Your task to perform on an android device: Clear the shopping cart on walmart.com. Search for "lenovo thinkpad" on walmart.com, select the first entry, add it to the cart, then select checkout. Image 0: 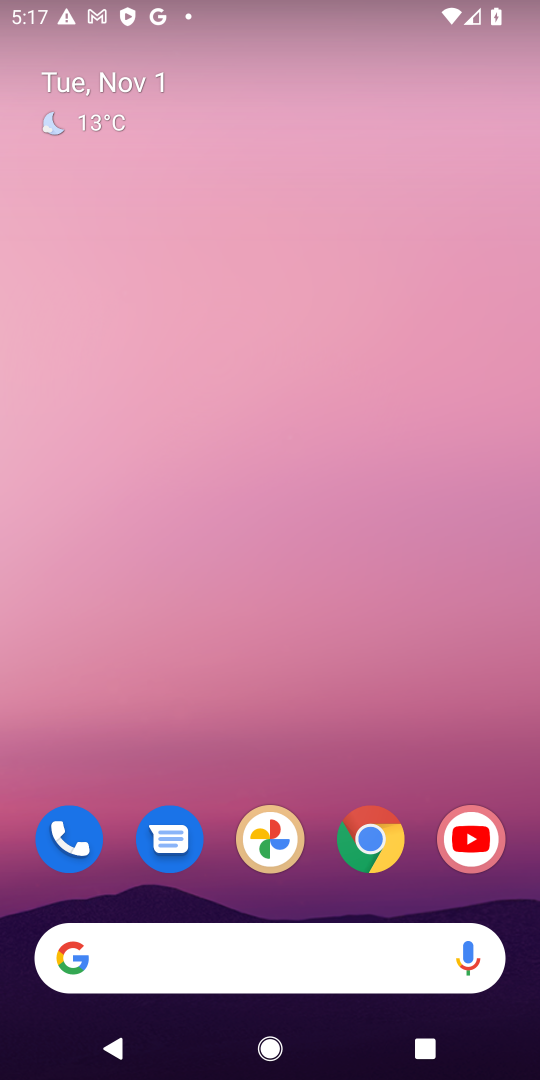
Step 0: drag from (322, 891) to (342, 106)
Your task to perform on an android device: Clear the shopping cart on walmart.com. Search for "lenovo thinkpad" on walmart.com, select the first entry, add it to the cart, then select checkout. Image 1: 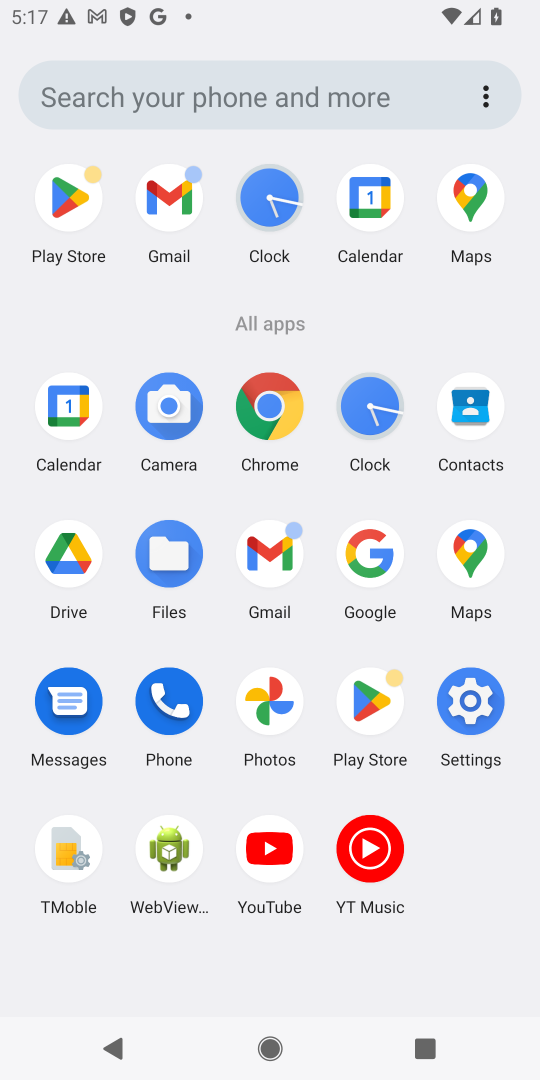
Step 1: click (274, 395)
Your task to perform on an android device: Clear the shopping cart on walmart.com. Search for "lenovo thinkpad" on walmart.com, select the first entry, add it to the cart, then select checkout. Image 2: 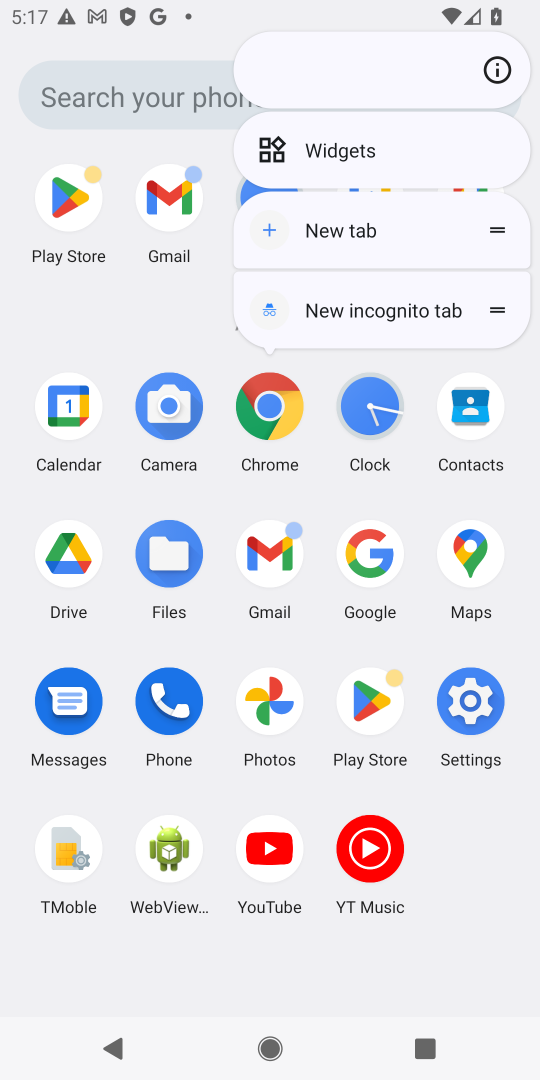
Step 2: click (278, 416)
Your task to perform on an android device: Clear the shopping cart on walmart.com. Search for "lenovo thinkpad" on walmart.com, select the first entry, add it to the cart, then select checkout. Image 3: 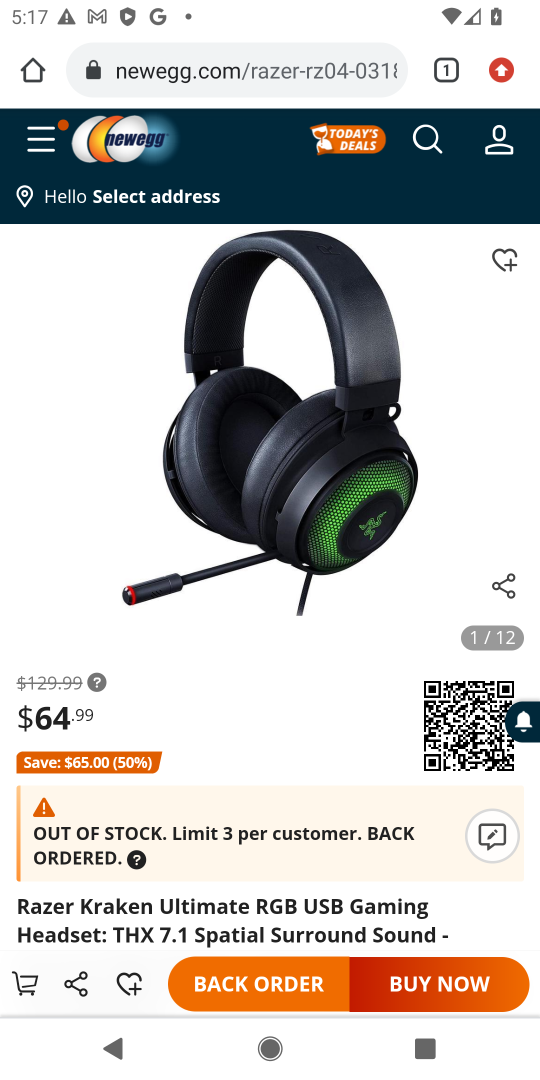
Step 3: click (271, 60)
Your task to perform on an android device: Clear the shopping cart on walmart.com. Search for "lenovo thinkpad" on walmart.com, select the first entry, add it to the cart, then select checkout. Image 4: 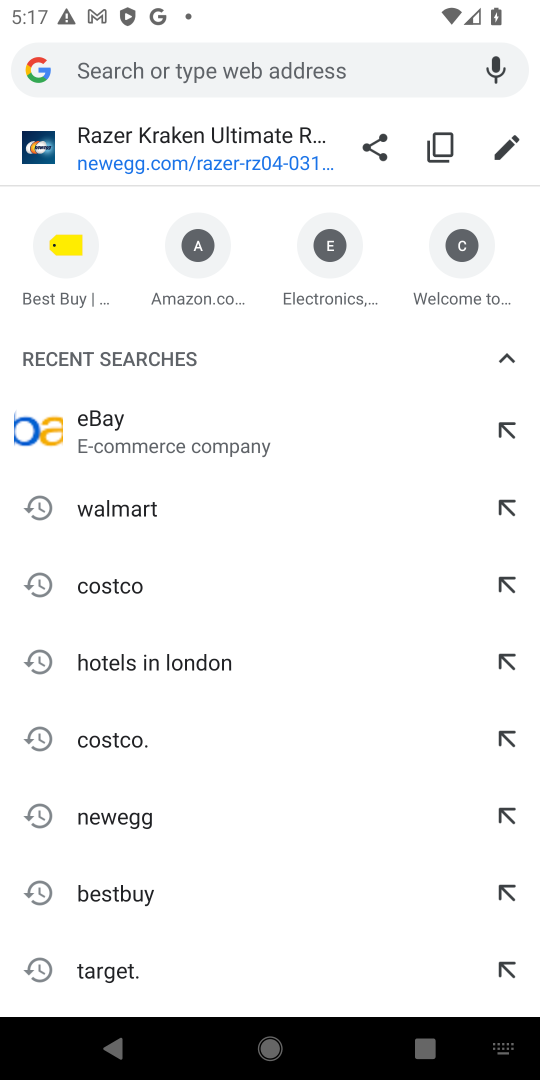
Step 4: type "walmart.com"
Your task to perform on an android device: Clear the shopping cart on walmart.com. Search for "lenovo thinkpad" on walmart.com, select the first entry, add it to the cart, then select checkout. Image 5: 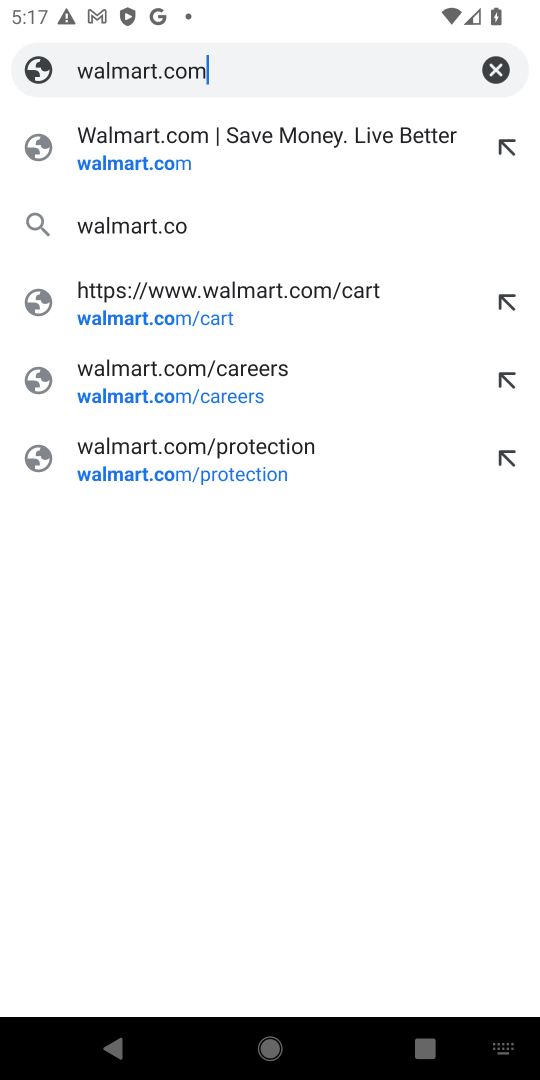
Step 5: press enter
Your task to perform on an android device: Clear the shopping cart on walmart.com. Search for "lenovo thinkpad" on walmart.com, select the first entry, add it to the cart, then select checkout. Image 6: 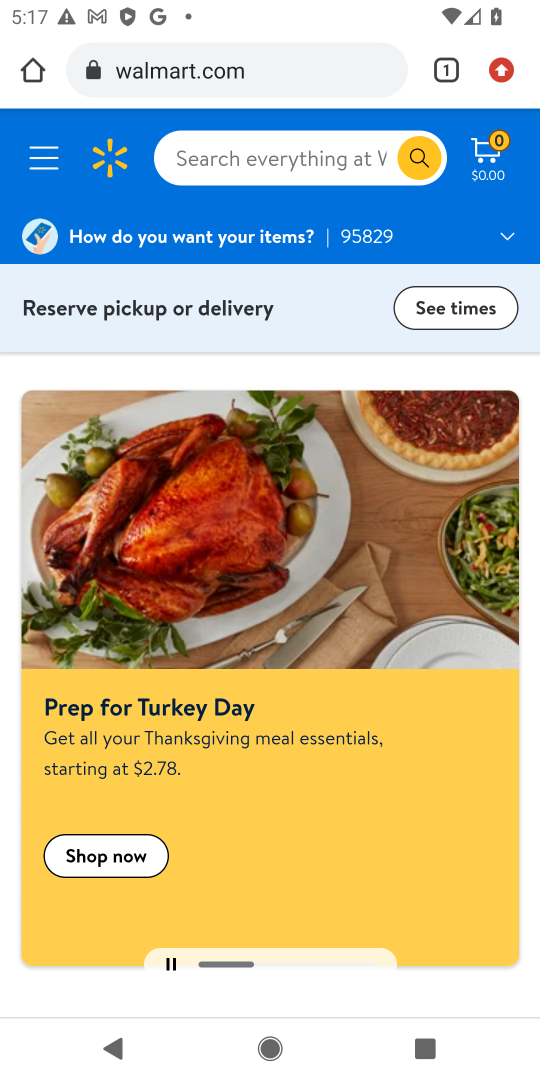
Step 6: click (505, 153)
Your task to perform on an android device: Clear the shopping cart on walmart.com. Search for "lenovo thinkpad" on walmart.com, select the first entry, add it to the cart, then select checkout. Image 7: 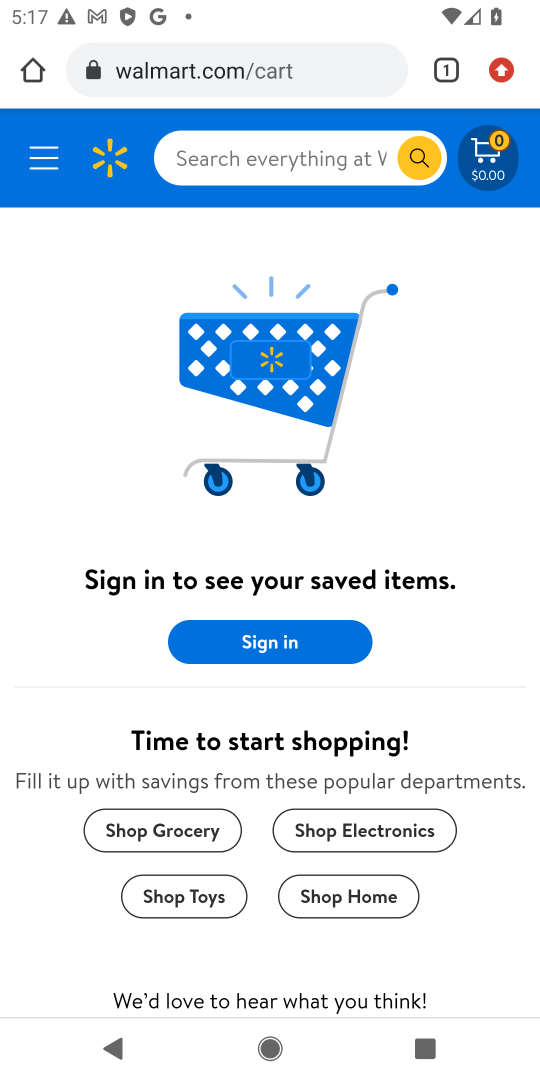
Step 7: click (294, 149)
Your task to perform on an android device: Clear the shopping cart on walmart.com. Search for "lenovo thinkpad" on walmart.com, select the first entry, add it to the cart, then select checkout. Image 8: 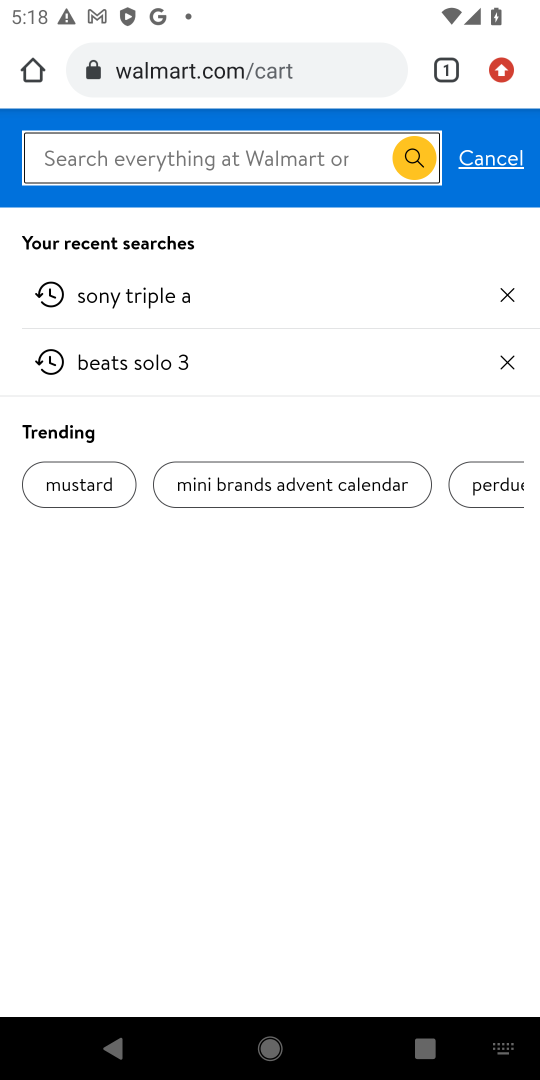
Step 8: type "lenovo thinkpad"
Your task to perform on an android device: Clear the shopping cart on walmart.com. Search for "lenovo thinkpad" on walmart.com, select the first entry, add it to the cart, then select checkout. Image 9: 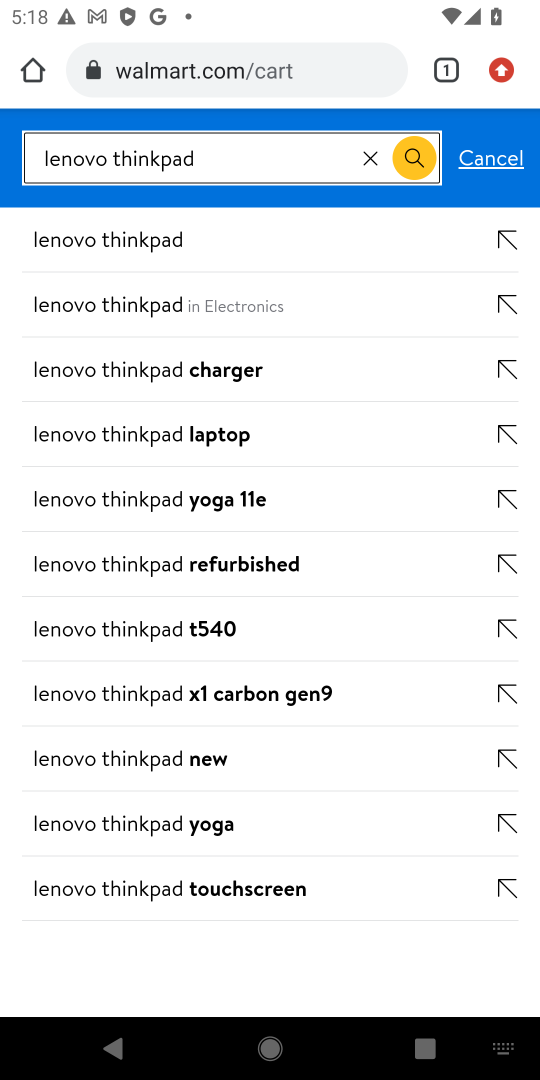
Step 9: press enter
Your task to perform on an android device: Clear the shopping cart on walmart.com. Search for "lenovo thinkpad" on walmart.com, select the first entry, add it to the cart, then select checkout. Image 10: 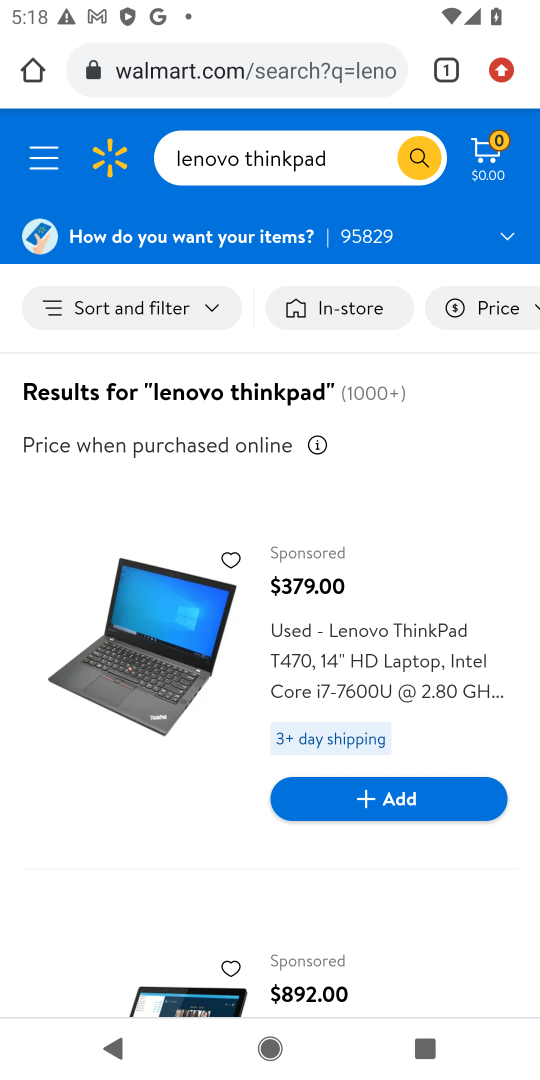
Step 10: drag from (326, 879) to (449, 161)
Your task to perform on an android device: Clear the shopping cart on walmart.com. Search for "lenovo thinkpad" on walmart.com, select the first entry, add it to the cart, then select checkout. Image 11: 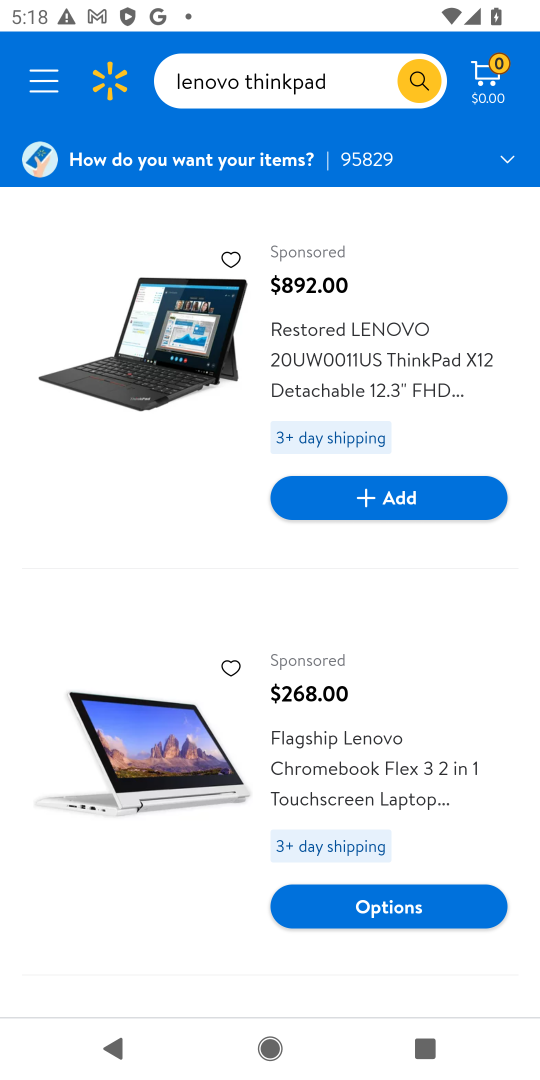
Step 11: drag from (381, 853) to (440, 269)
Your task to perform on an android device: Clear the shopping cart on walmart.com. Search for "lenovo thinkpad" on walmart.com, select the first entry, add it to the cart, then select checkout. Image 12: 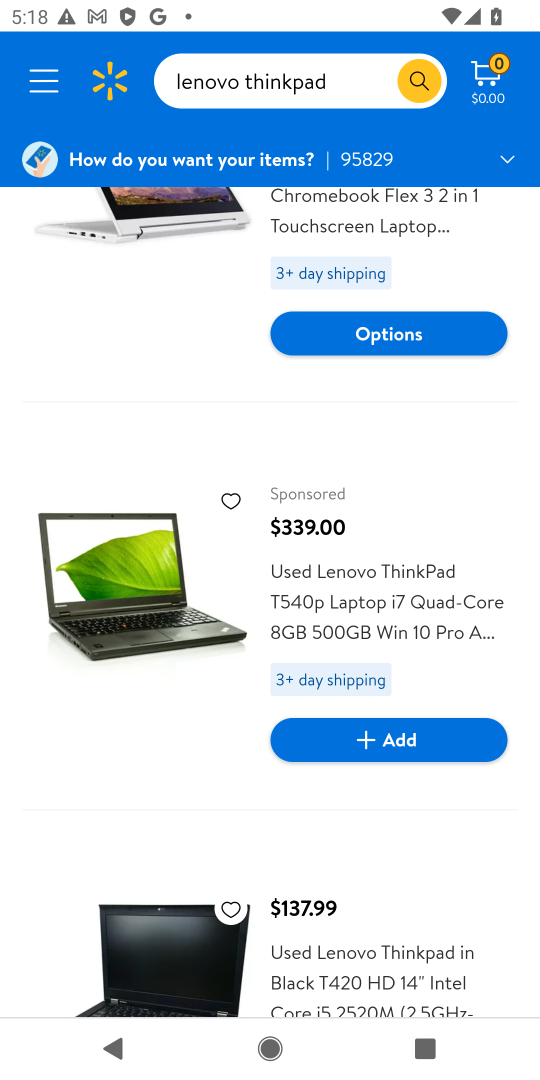
Step 12: drag from (261, 711) to (349, 238)
Your task to perform on an android device: Clear the shopping cart on walmart.com. Search for "lenovo thinkpad" on walmart.com, select the first entry, add it to the cart, then select checkout. Image 13: 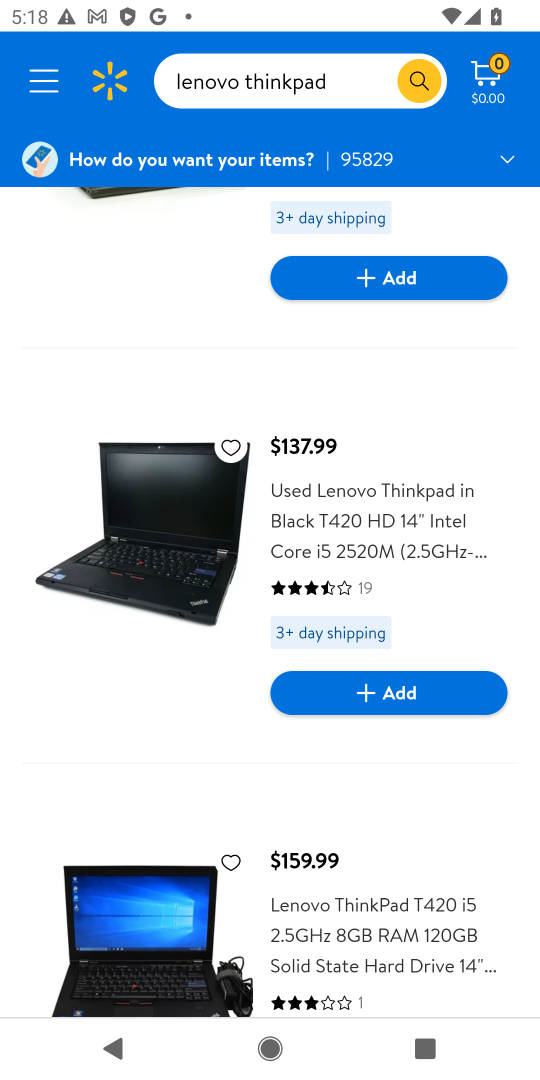
Step 13: click (333, 541)
Your task to perform on an android device: Clear the shopping cart on walmart.com. Search for "lenovo thinkpad" on walmart.com, select the first entry, add it to the cart, then select checkout. Image 14: 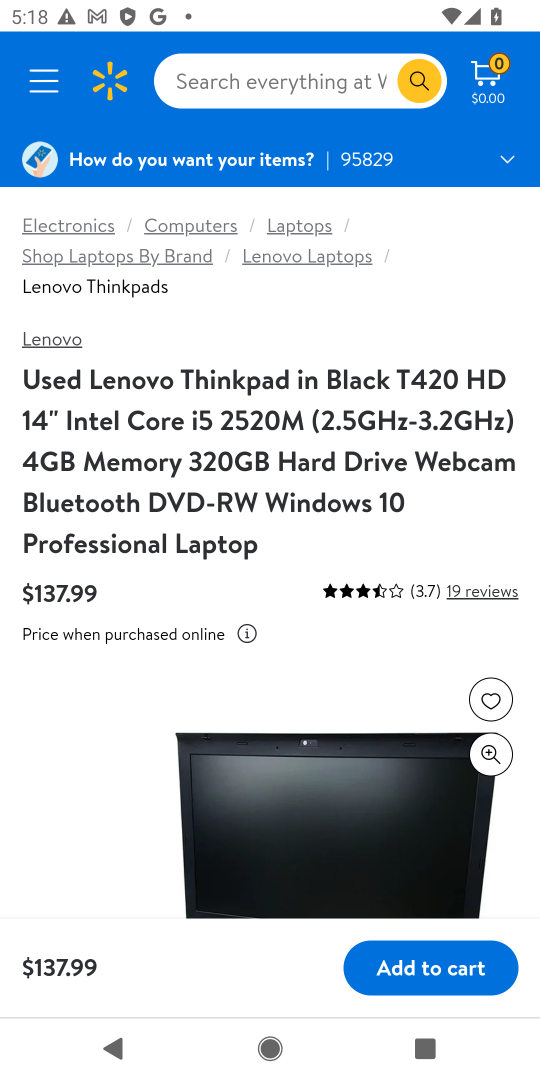
Step 14: click (434, 970)
Your task to perform on an android device: Clear the shopping cart on walmart.com. Search for "lenovo thinkpad" on walmart.com, select the first entry, add it to the cart, then select checkout. Image 15: 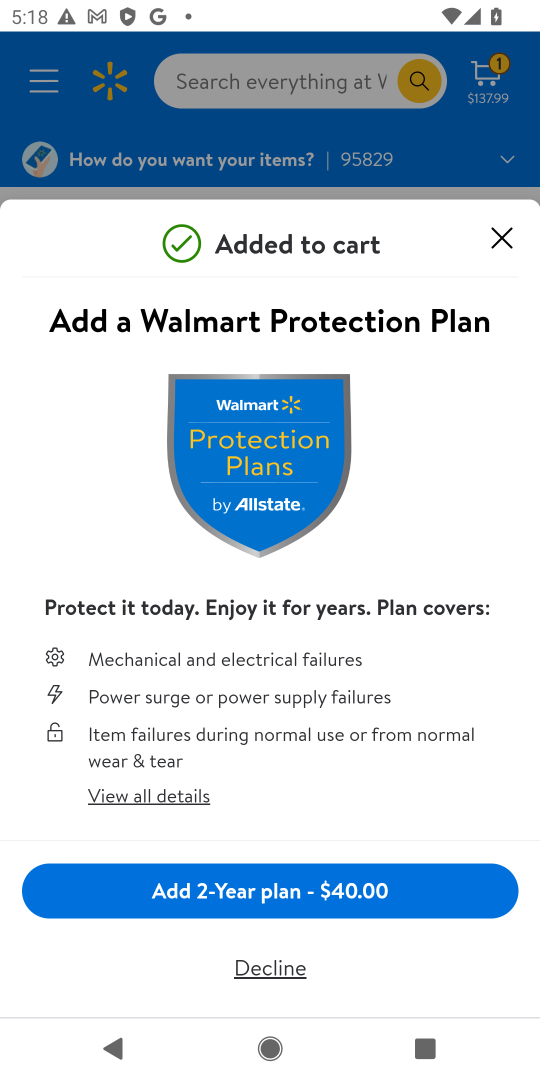
Step 15: click (508, 223)
Your task to perform on an android device: Clear the shopping cart on walmart.com. Search for "lenovo thinkpad" on walmart.com, select the first entry, add it to the cart, then select checkout. Image 16: 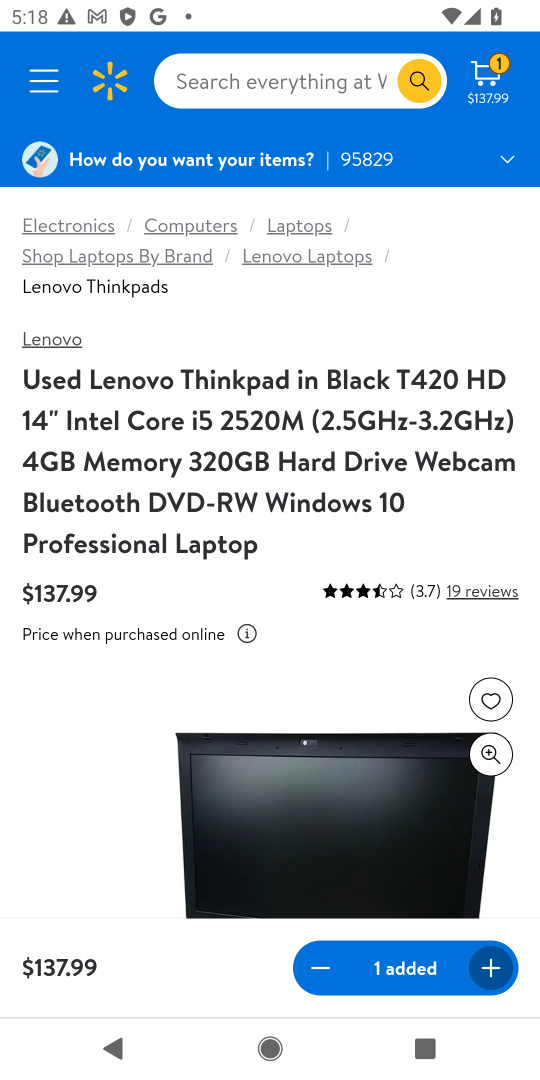
Step 16: click (488, 80)
Your task to perform on an android device: Clear the shopping cart on walmart.com. Search for "lenovo thinkpad" on walmart.com, select the first entry, add it to the cart, then select checkout. Image 17: 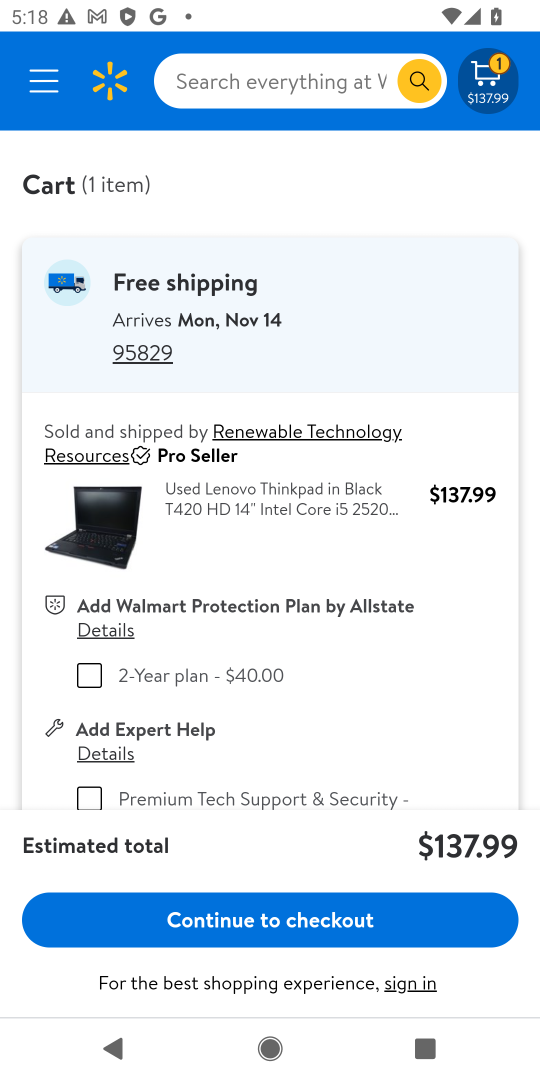
Step 17: click (264, 916)
Your task to perform on an android device: Clear the shopping cart on walmart.com. Search for "lenovo thinkpad" on walmart.com, select the first entry, add it to the cart, then select checkout. Image 18: 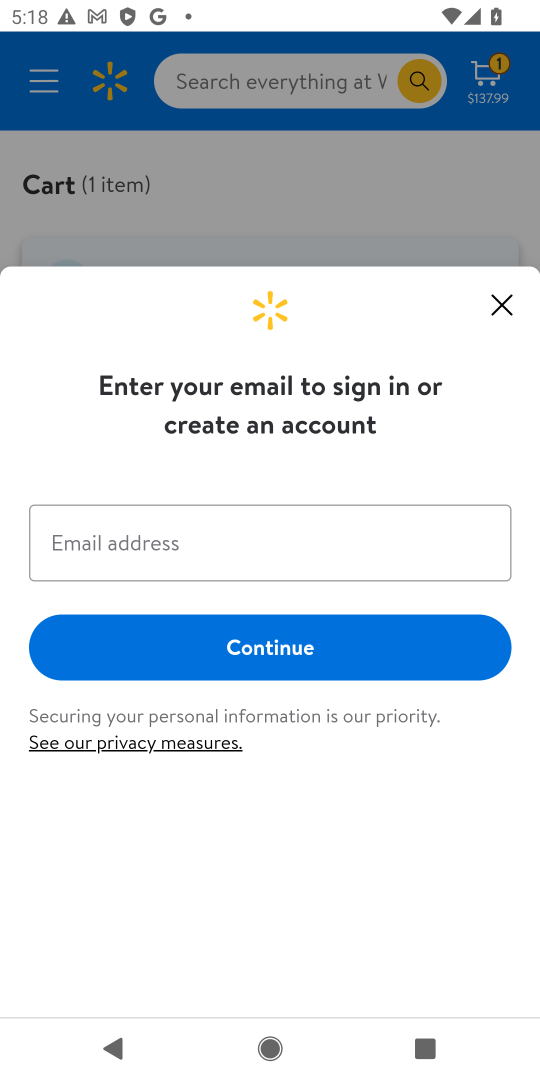
Step 18: task complete